Your task to perform on an android device: check storage Image 0: 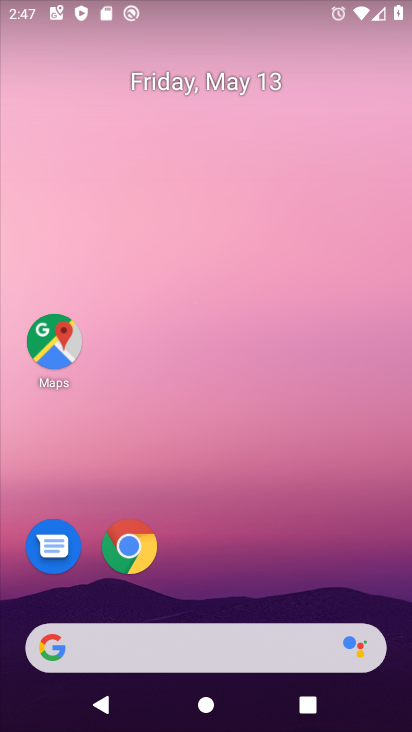
Step 0: drag from (289, 460) to (271, 147)
Your task to perform on an android device: check storage Image 1: 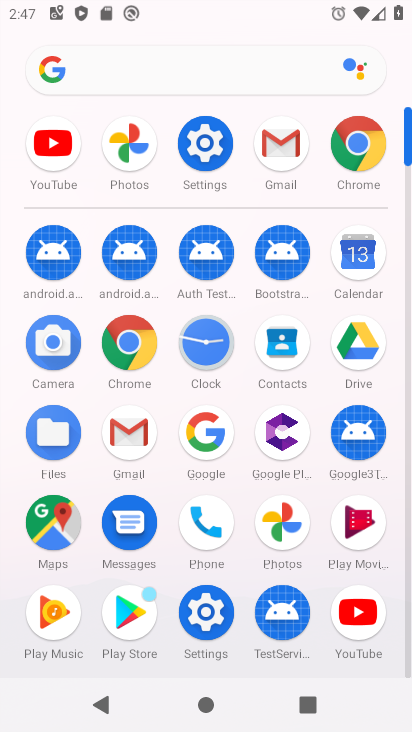
Step 1: click (211, 153)
Your task to perform on an android device: check storage Image 2: 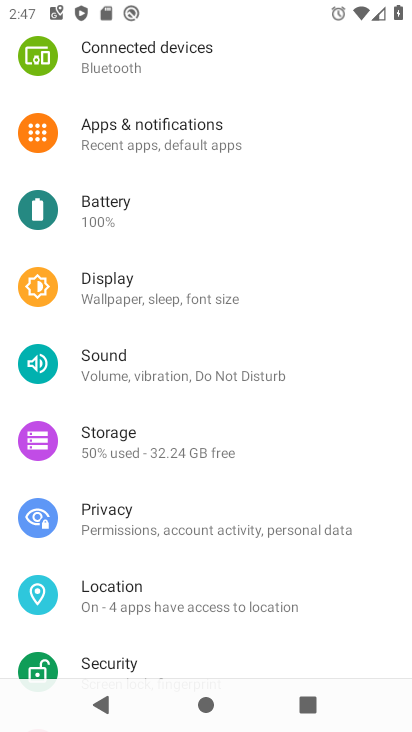
Step 2: click (172, 447)
Your task to perform on an android device: check storage Image 3: 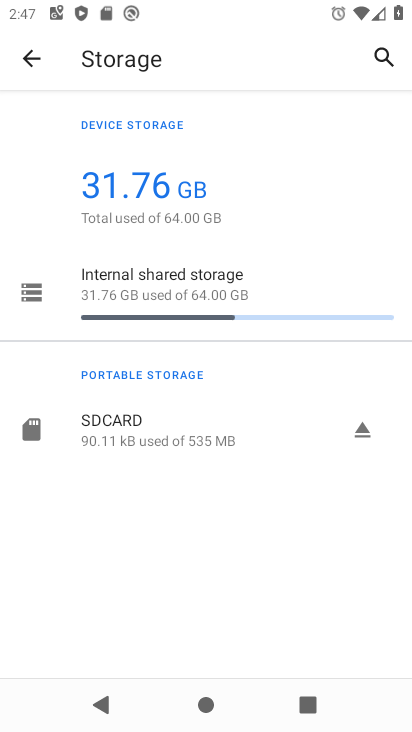
Step 3: task complete